Your task to perform on an android device: set the timer Image 0: 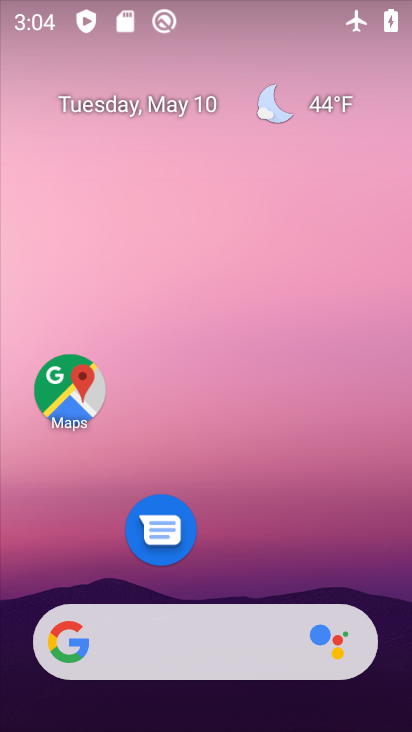
Step 0: drag from (251, 512) to (234, 12)
Your task to perform on an android device: set the timer Image 1: 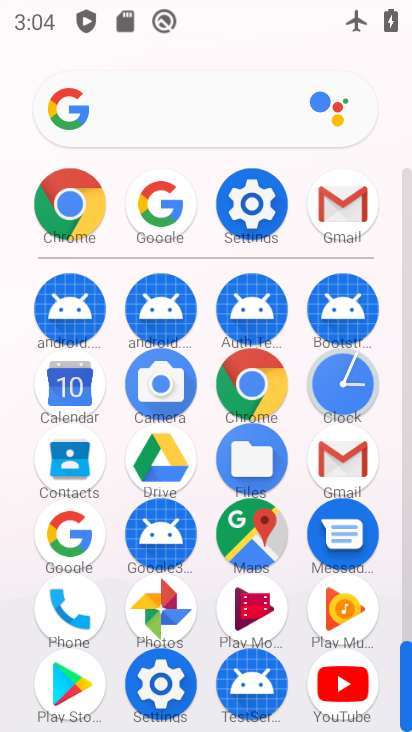
Step 1: click (342, 388)
Your task to perform on an android device: set the timer Image 2: 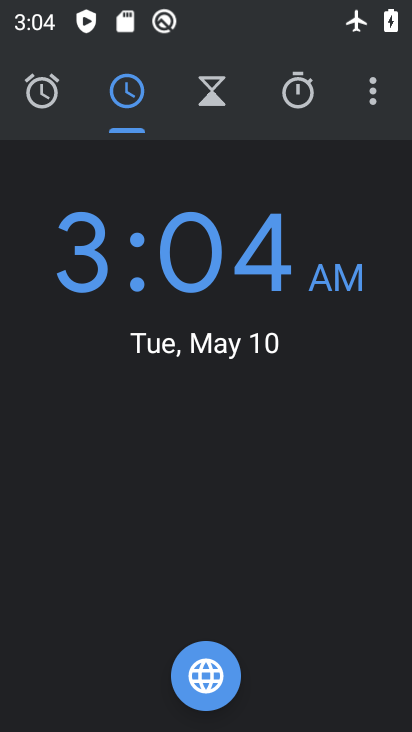
Step 2: click (219, 94)
Your task to perform on an android device: set the timer Image 3: 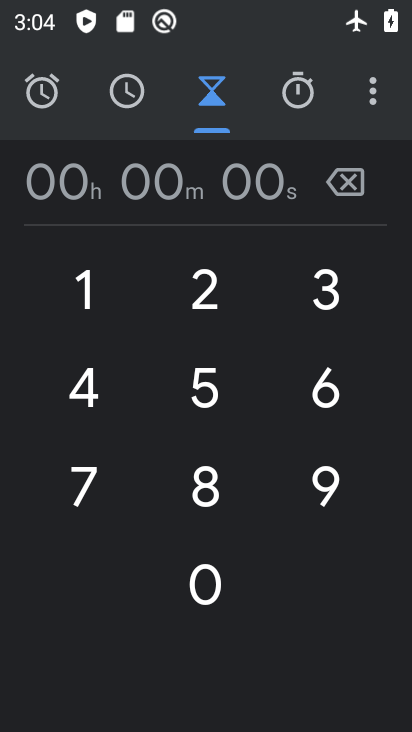
Step 3: click (200, 288)
Your task to perform on an android device: set the timer Image 4: 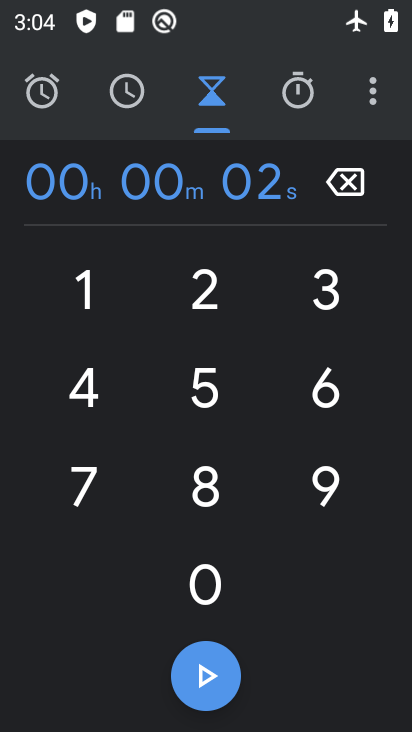
Step 4: click (200, 288)
Your task to perform on an android device: set the timer Image 5: 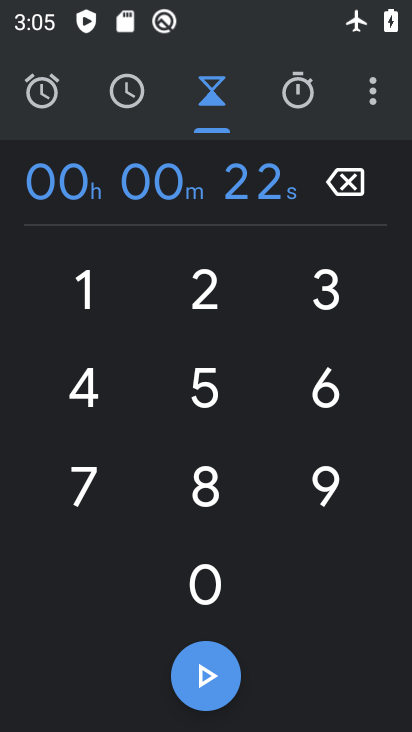
Step 5: task complete